Your task to perform on an android device: What's on my calendar today? Image 0: 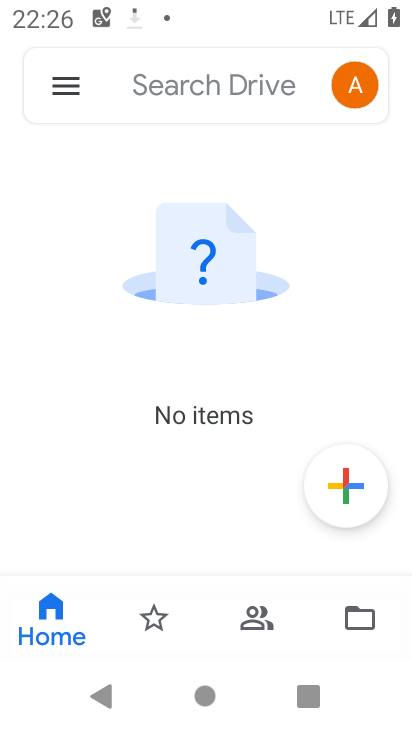
Step 0: press back button
Your task to perform on an android device: What's on my calendar today? Image 1: 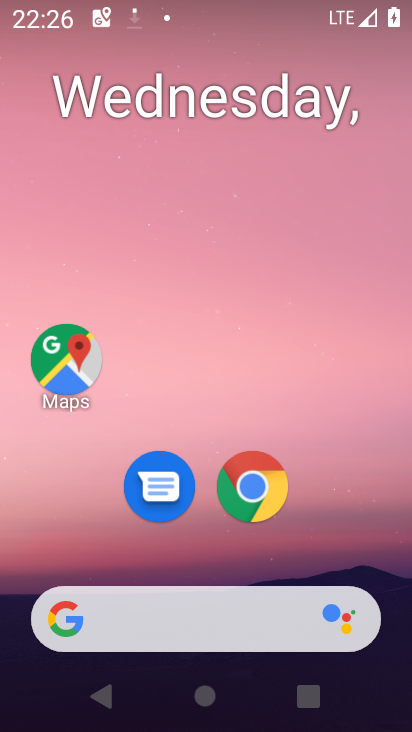
Step 1: drag from (150, 572) to (240, 8)
Your task to perform on an android device: What's on my calendar today? Image 2: 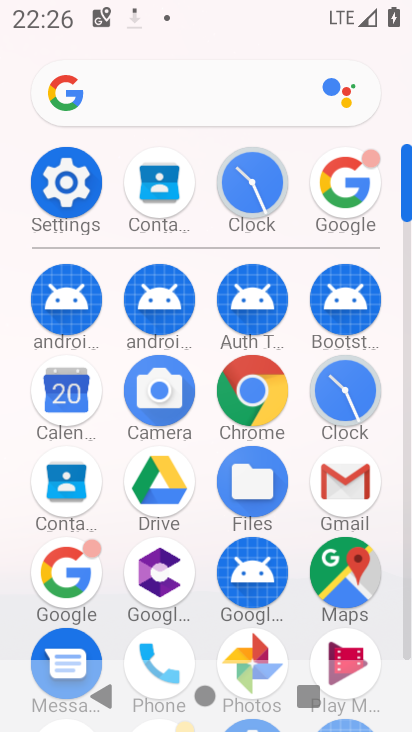
Step 2: click (61, 389)
Your task to perform on an android device: What's on my calendar today? Image 3: 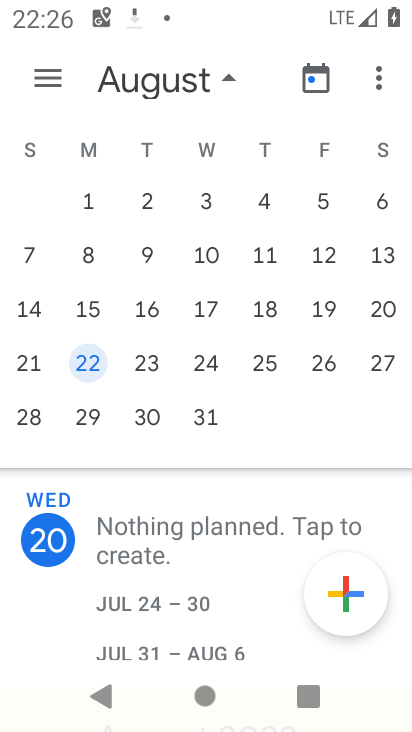
Step 3: drag from (58, 266) to (405, 198)
Your task to perform on an android device: What's on my calendar today? Image 4: 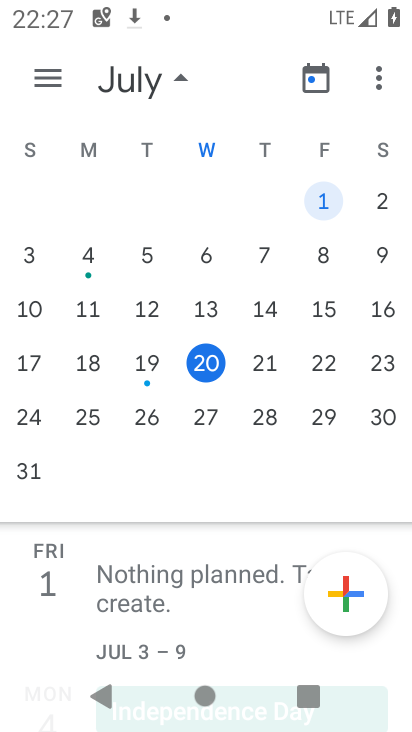
Step 4: click (155, 355)
Your task to perform on an android device: What's on my calendar today? Image 5: 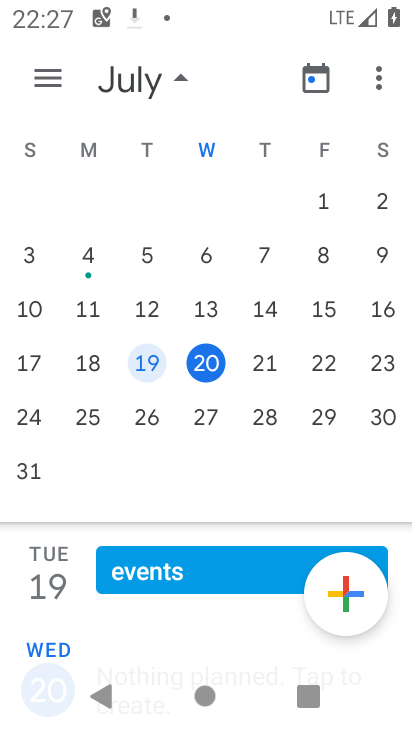
Step 5: click (216, 363)
Your task to perform on an android device: What's on my calendar today? Image 6: 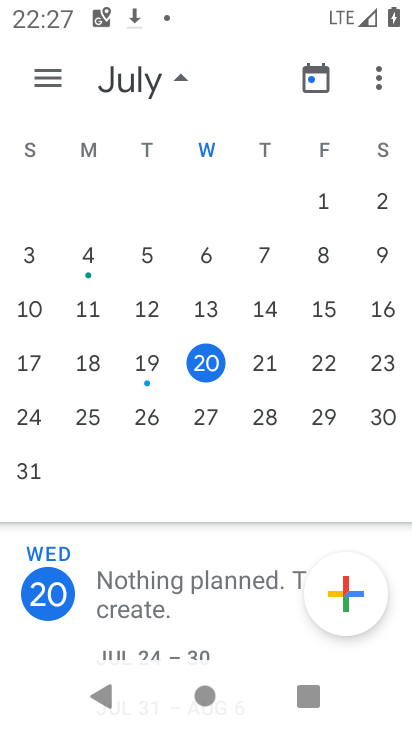
Step 6: click (256, 366)
Your task to perform on an android device: What's on my calendar today? Image 7: 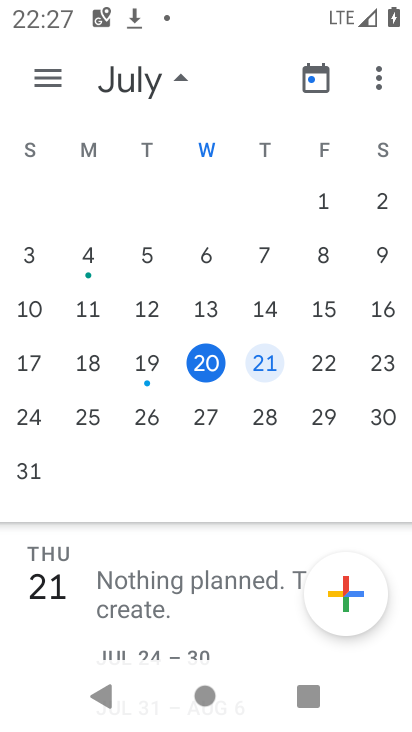
Step 7: click (202, 359)
Your task to perform on an android device: What's on my calendar today? Image 8: 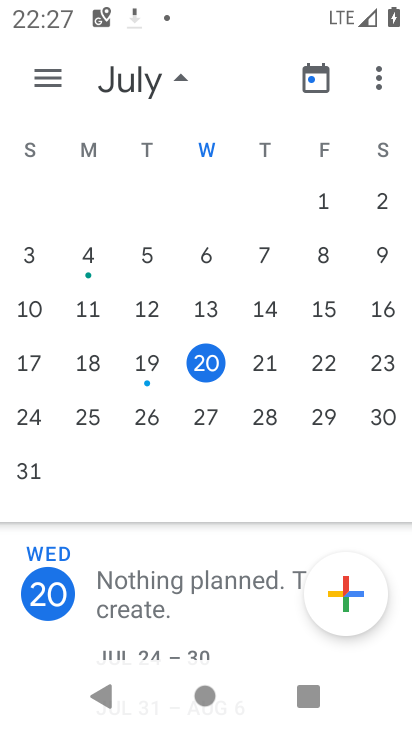
Step 8: task complete